Your task to perform on an android device: Open Google Image 0: 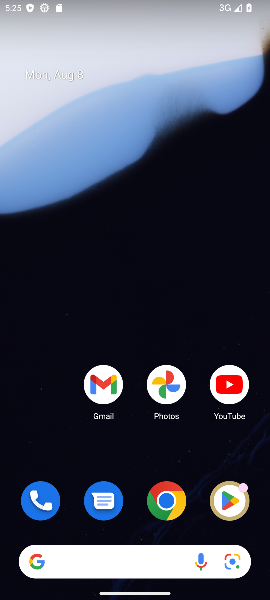
Step 0: drag from (18, 593) to (158, 321)
Your task to perform on an android device: Open Google Image 1: 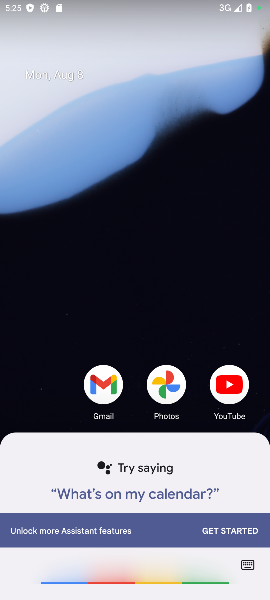
Step 1: click (158, 321)
Your task to perform on an android device: Open Google Image 2: 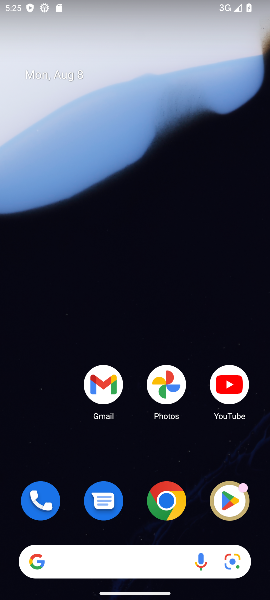
Step 2: click (52, 559)
Your task to perform on an android device: Open Google Image 3: 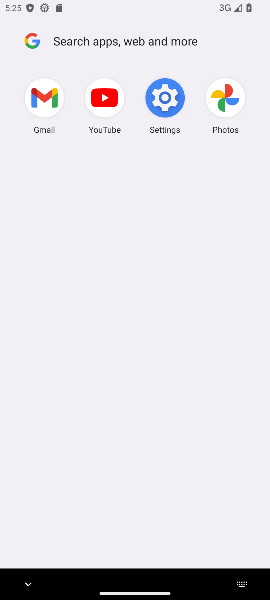
Step 3: task complete